Your task to perform on an android device: Search for sushi restaurants on Maps Image 0: 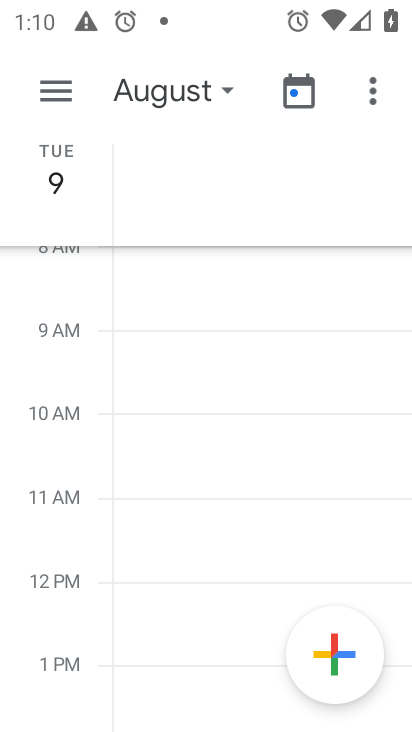
Step 0: press home button
Your task to perform on an android device: Search for sushi restaurants on Maps Image 1: 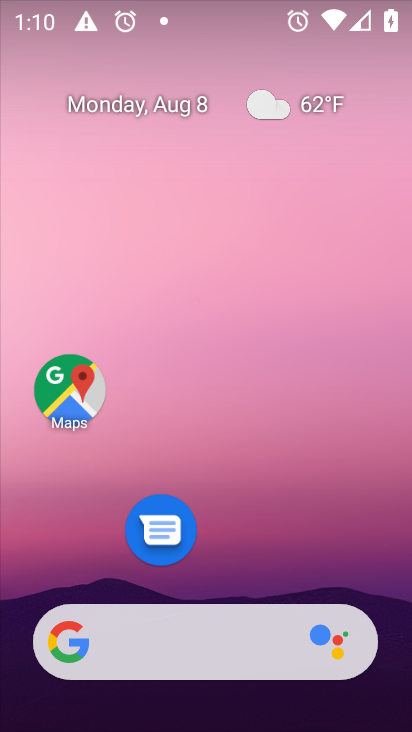
Step 1: drag from (235, 473) to (222, 28)
Your task to perform on an android device: Search for sushi restaurants on Maps Image 2: 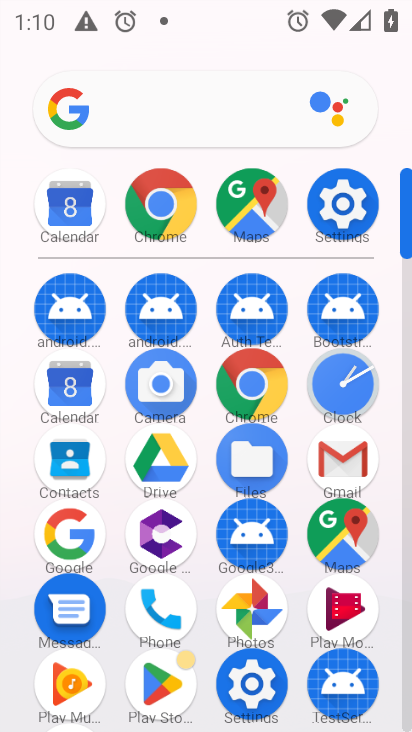
Step 2: click (350, 526)
Your task to perform on an android device: Search for sushi restaurants on Maps Image 3: 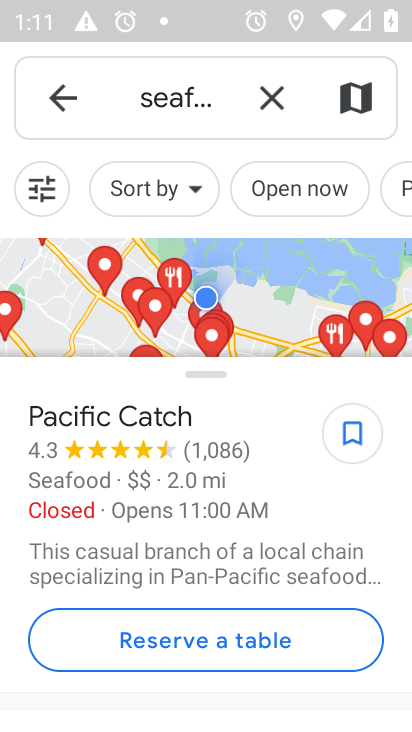
Step 3: click (270, 96)
Your task to perform on an android device: Search for sushi restaurants on Maps Image 4: 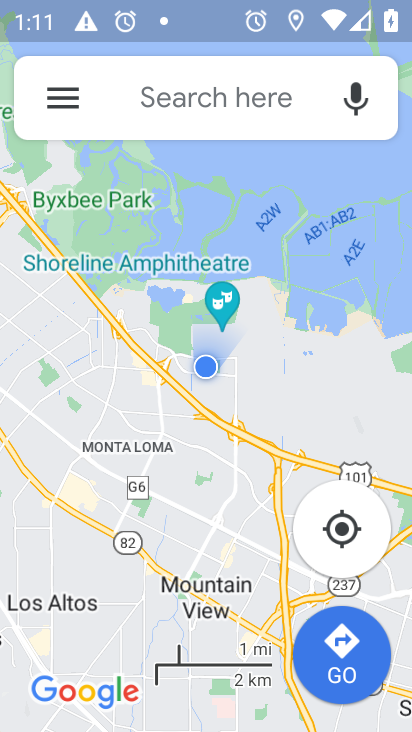
Step 4: click (235, 102)
Your task to perform on an android device: Search for sushi restaurants on Maps Image 5: 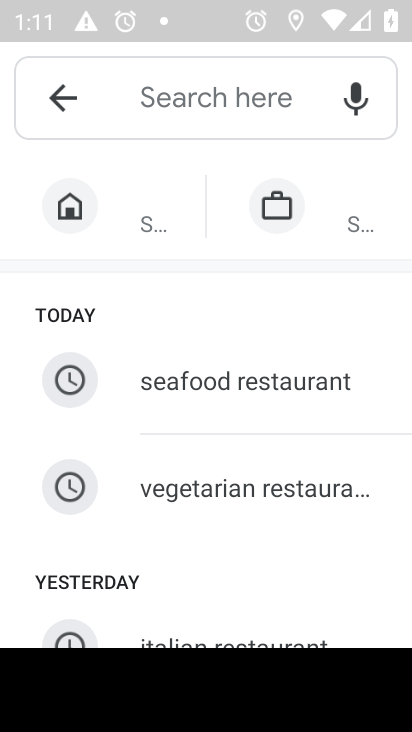
Step 5: type "sushi restaurants"
Your task to perform on an android device: Search for sushi restaurants on Maps Image 6: 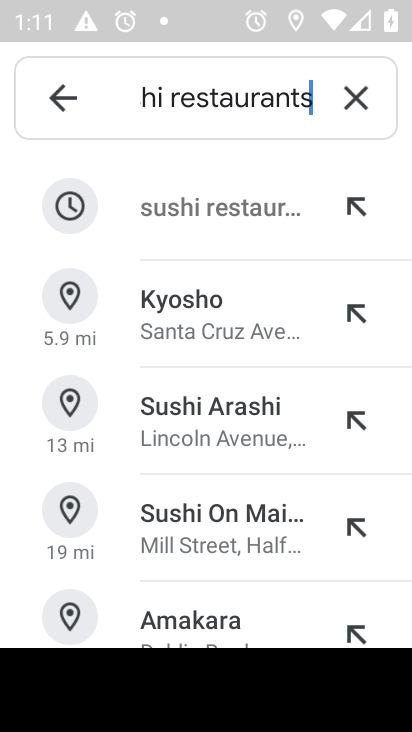
Step 6: click (252, 210)
Your task to perform on an android device: Search for sushi restaurants on Maps Image 7: 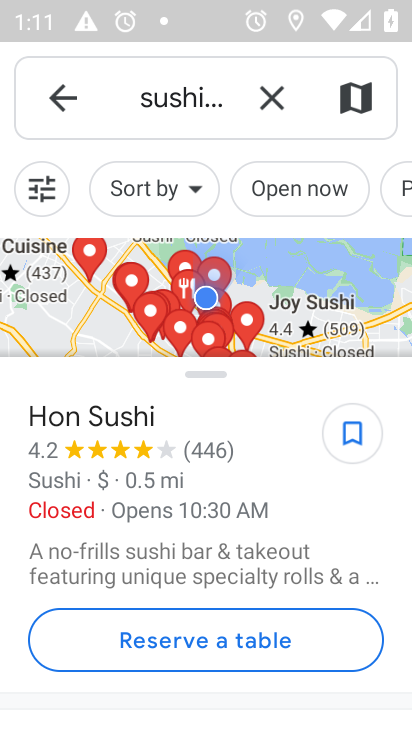
Step 7: task complete